Your task to perform on an android device: delete browsing data in the chrome app Image 0: 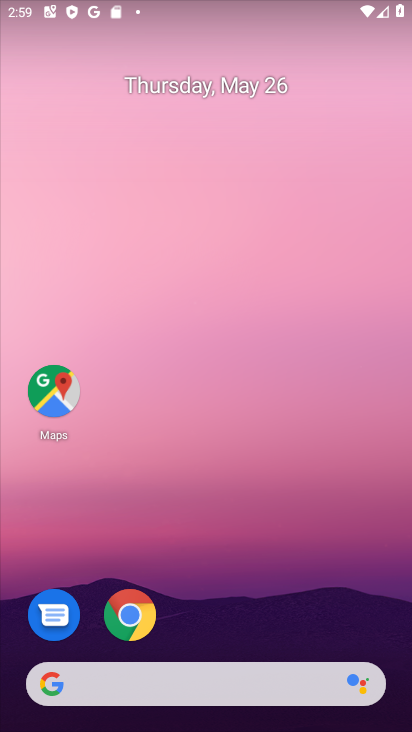
Step 0: click (123, 635)
Your task to perform on an android device: delete browsing data in the chrome app Image 1: 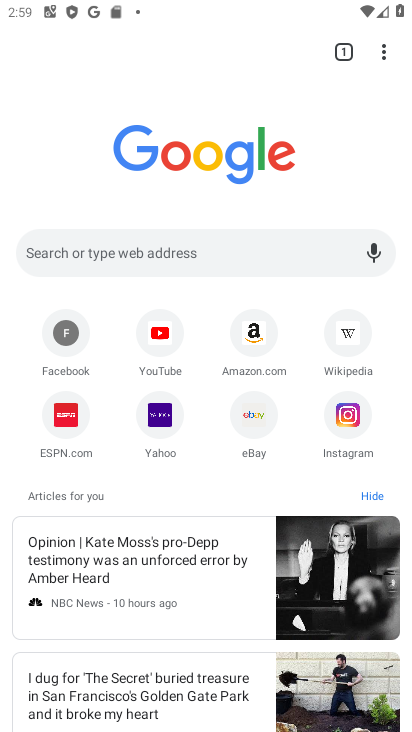
Step 1: click (382, 58)
Your task to perform on an android device: delete browsing data in the chrome app Image 2: 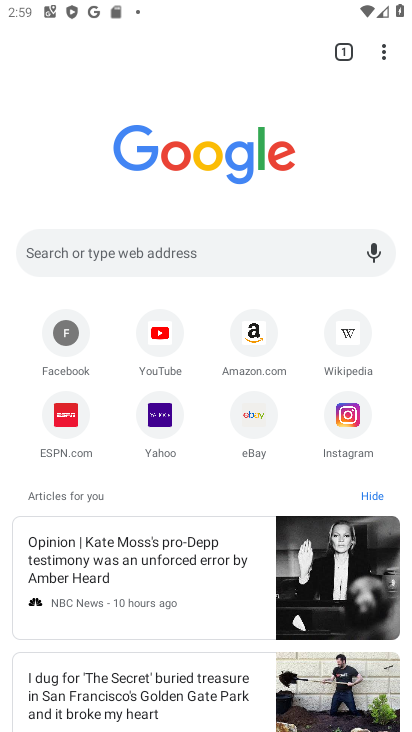
Step 2: click (382, 54)
Your task to perform on an android device: delete browsing data in the chrome app Image 3: 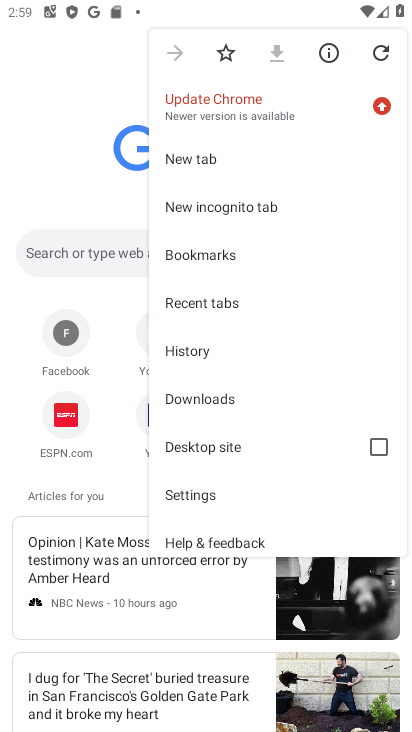
Step 3: click (198, 350)
Your task to perform on an android device: delete browsing data in the chrome app Image 4: 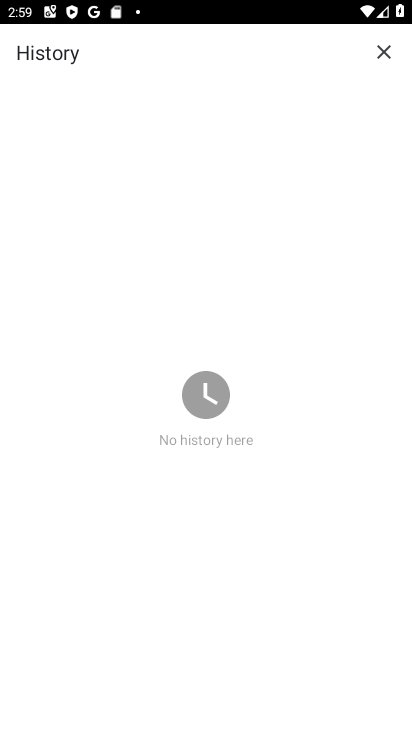
Step 4: task complete